Your task to perform on an android device: Open Google Chrome Image 0: 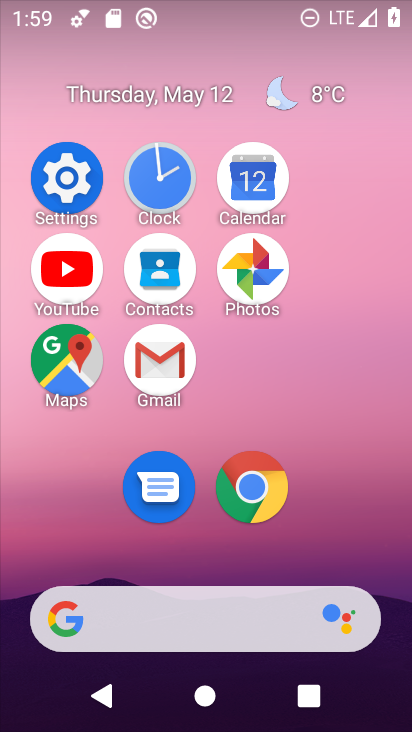
Step 0: click (256, 493)
Your task to perform on an android device: Open Google Chrome Image 1: 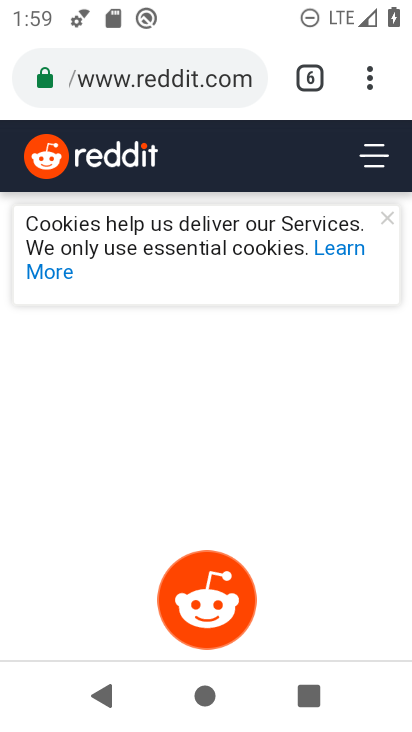
Step 1: task complete